Your task to perform on an android device: Do I have any events this weekend? Image 0: 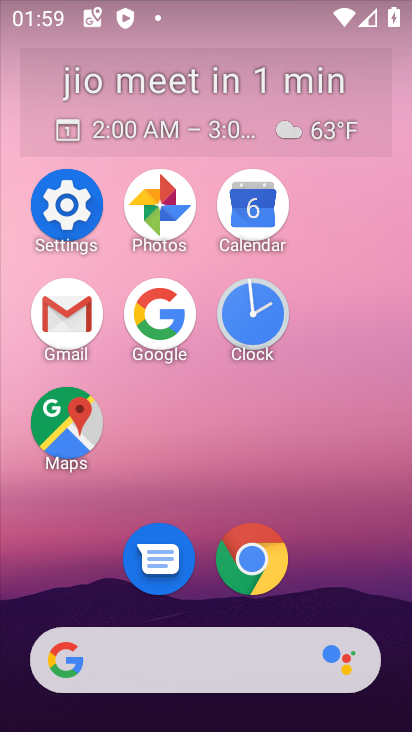
Step 0: click (249, 206)
Your task to perform on an android device: Do I have any events this weekend? Image 1: 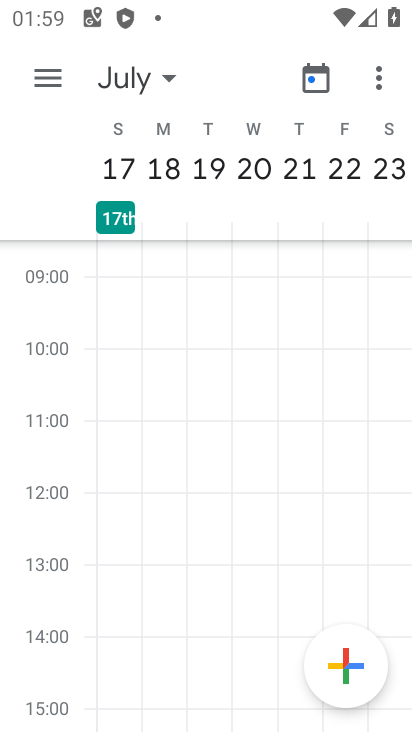
Step 1: click (139, 70)
Your task to perform on an android device: Do I have any events this weekend? Image 2: 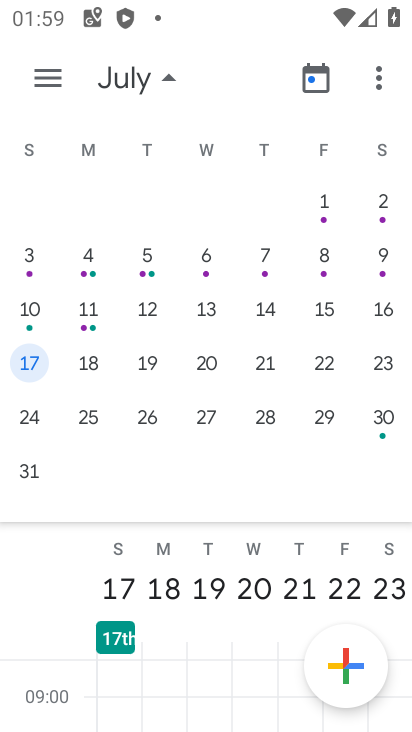
Step 2: drag from (58, 308) to (399, 199)
Your task to perform on an android device: Do I have any events this weekend? Image 3: 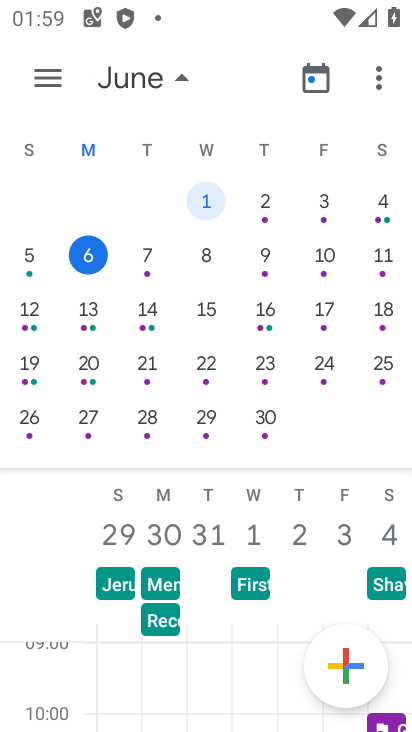
Step 3: click (404, 251)
Your task to perform on an android device: Do I have any events this weekend? Image 4: 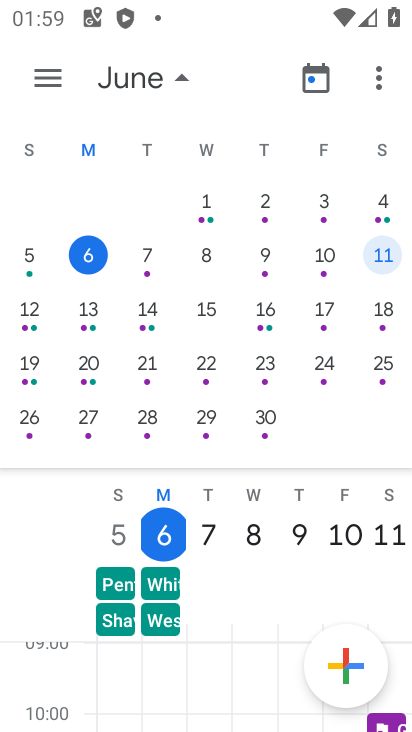
Step 4: click (383, 536)
Your task to perform on an android device: Do I have any events this weekend? Image 5: 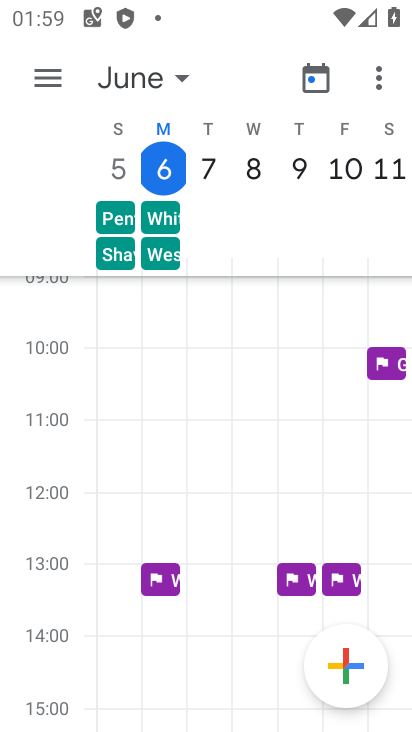
Step 5: click (387, 180)
Your task to perform on an android device: Do I have any events this weekend? Image 6: 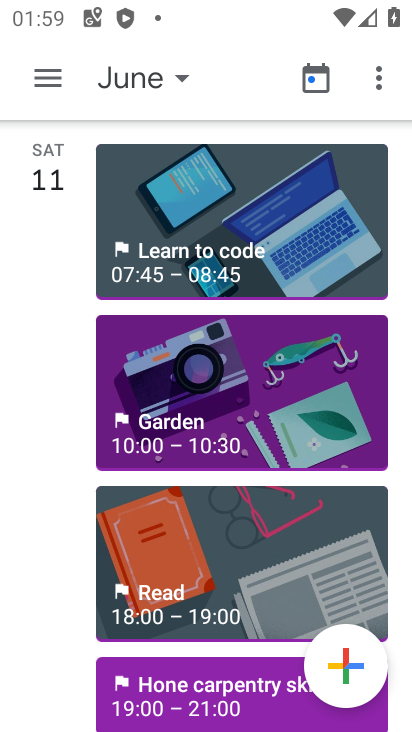
Step 6: click (389, 159)
Your task to perform on an android device: Do I have any events this weekend? Image 7: 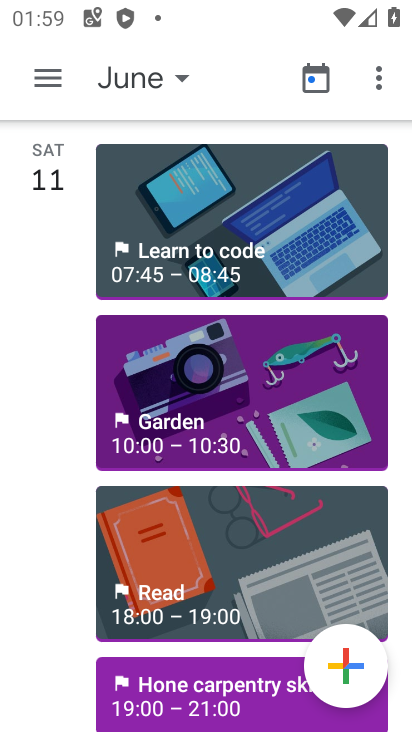
Step 7: task complete